Your task to perform on an android device: turn vacation reply on in the gmail app Image 0: 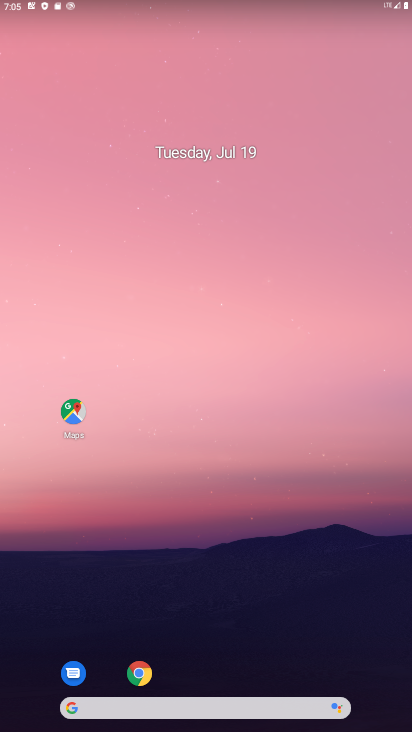
Step 0: drag from (365, 659) to (331, 45)
Your task to perform on an android device: turn vacation reply on in the gmail app Image 1: 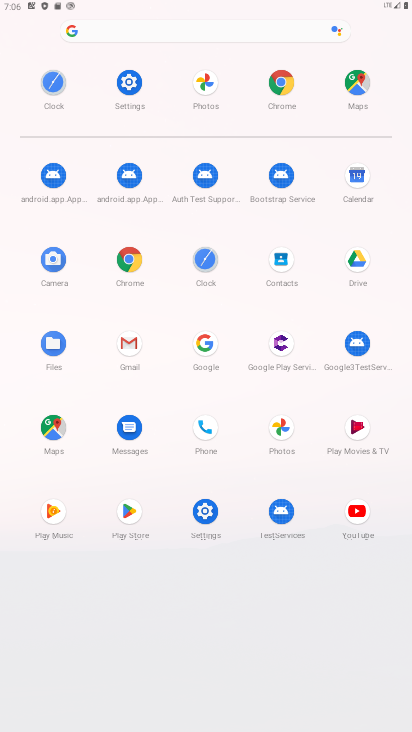
Step 1: click (216, 521)
Your task to perform on an android device: turn vacation reply on in the gmail app Image 2: 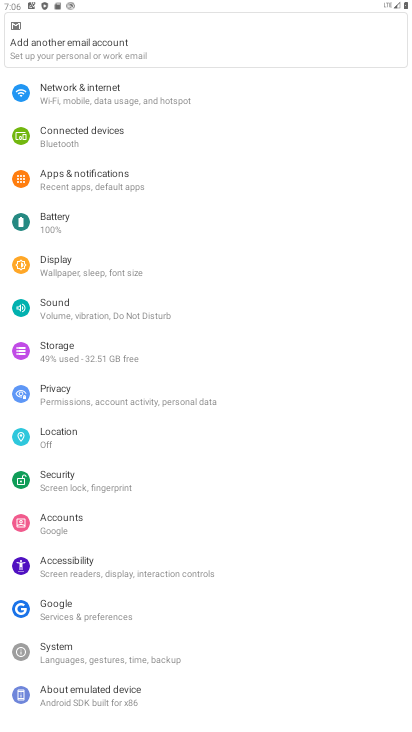
Step 2: press home button
Your task to perform on an android device: turn vacation reply on in the gmail app Image 3: 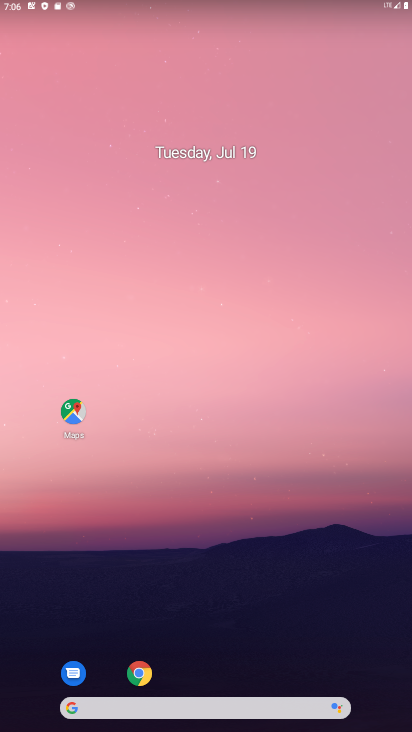
Step 3: drag from (330, 622) to (195, 87)
Your task to perform on an android device: turn vacation reply on in the gmail app Image 4: 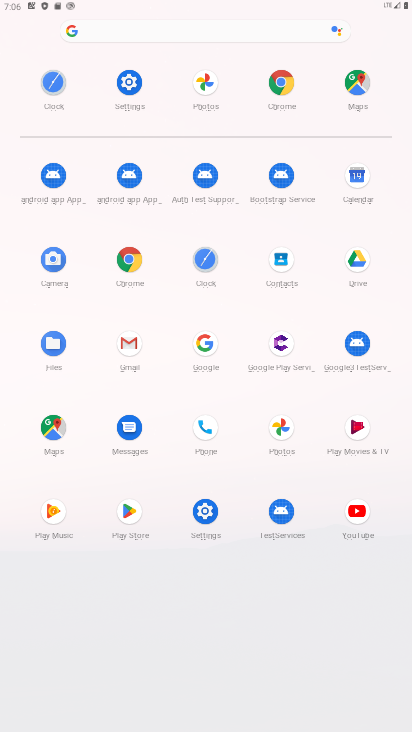
Step 4: click (126, 338)
Your task to perform on an android device: turn vacation reply on in the gmail app Image 5: 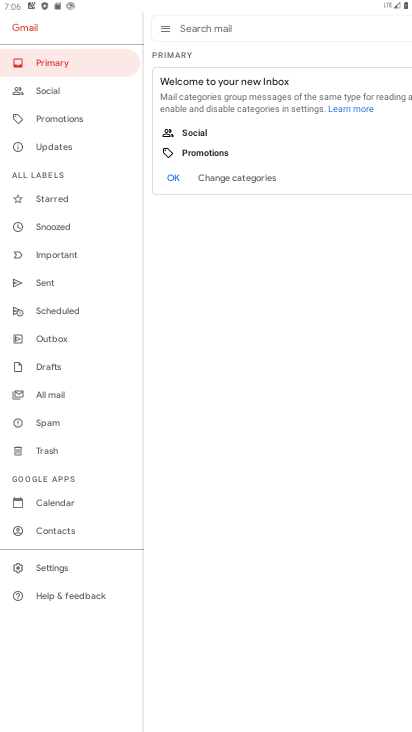
Step 5: click (52, 560)
Your task to perform on an android device: turn vacation reply on in the gmail app Image 6: 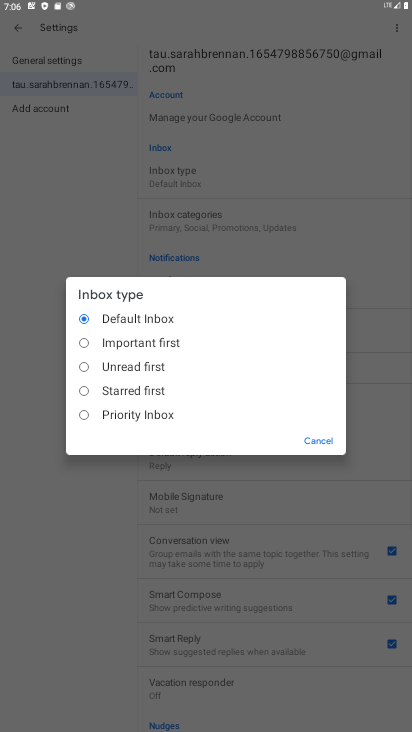
Step 6: click (313, 444)
Your task to perform on an android device: turn vacation reply on in the gmail app Image 7: 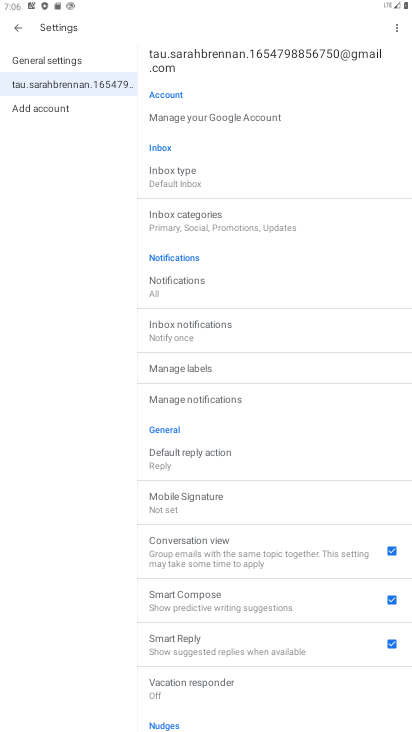
Step 7: drag from (192, 699) to (239, 368)
Your task to perform on an android device: turn vacation reply on in the gmail app Image 8: 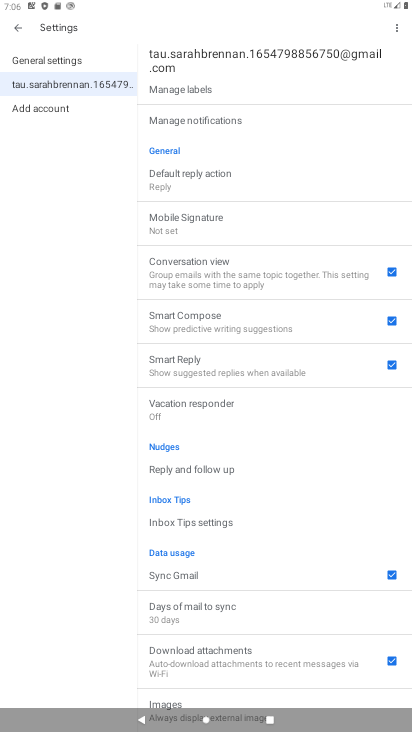
Step 8: click (215, 405)
Your task to perform on an android device: turn vacation reply on in the gmail app Image 9: 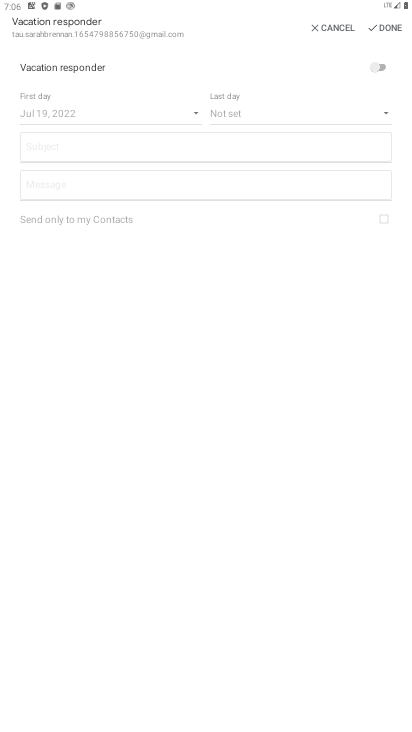
Step 9: click (390, 54)
Your task to perform on an android device: turn vacation reply on in the gmail app Image 10: 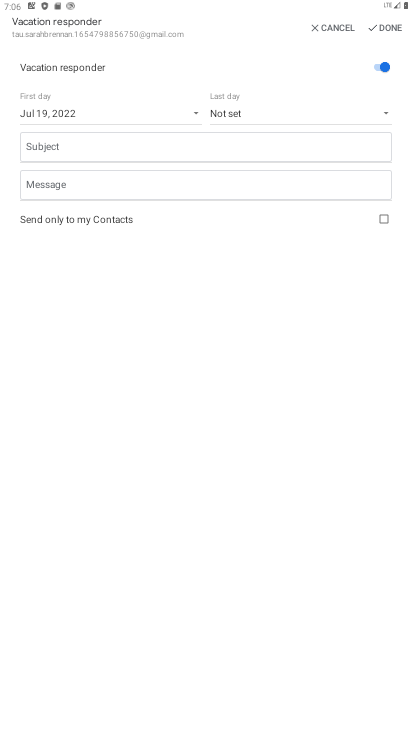
Step 10: task complete